Your task to perform on an android device: check out phone information Image 0: 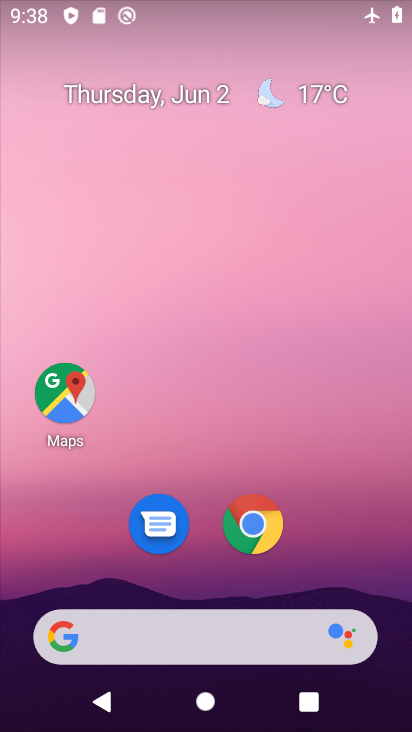
Step 0: drag from (171, 456) to (145, 5)
Your task to perform on an android device: check out phone information Image 1: 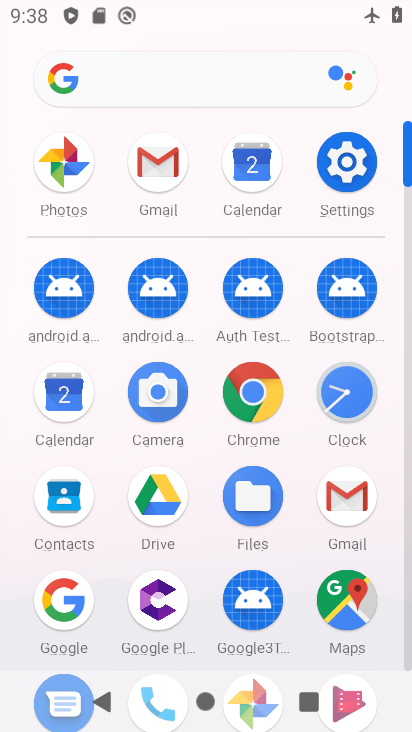
Step 1: drag from (200, 456) to (170, 167)
Your task to perform on an android device: check out phone information Image 2: 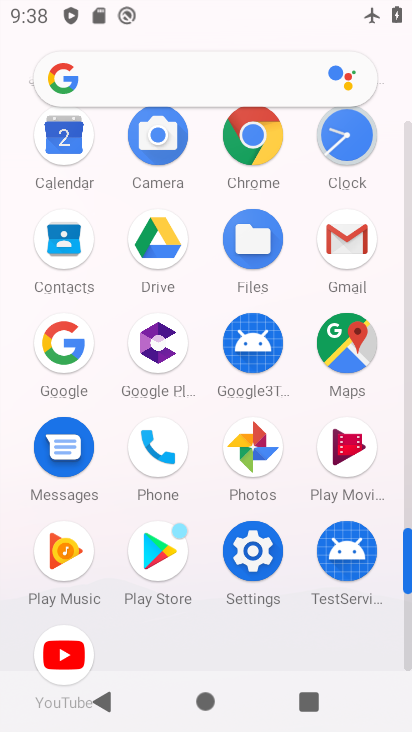
Step 2: click (156, 448)
Your task to perform on an android device: check out phone information Image 3: 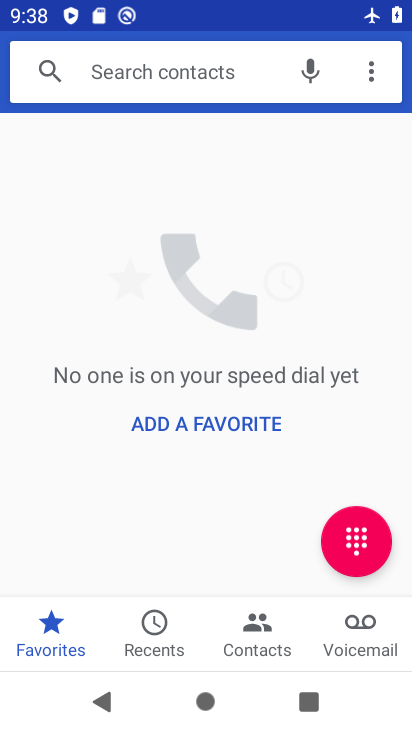
Step 3: click (370, 74)
Your task to perform on an android device: check out phone information Image 4: 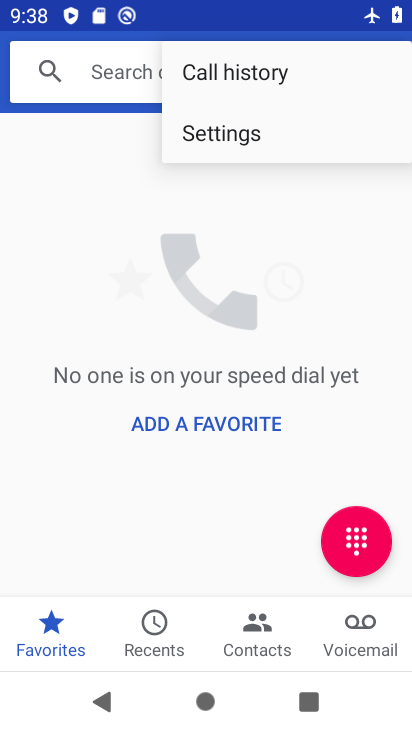
Step 4: click (336, 144)
Your task to perform on an android device: check out phone information Image 5: 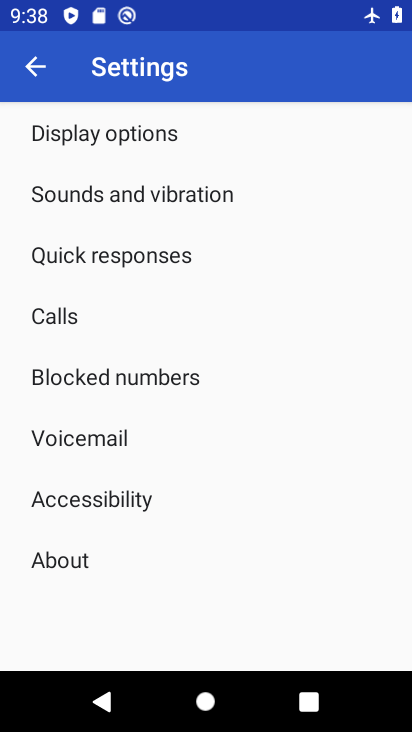
Step 5: click (111, 559)
Your task to perform on an android device: check out phone information Image 6: 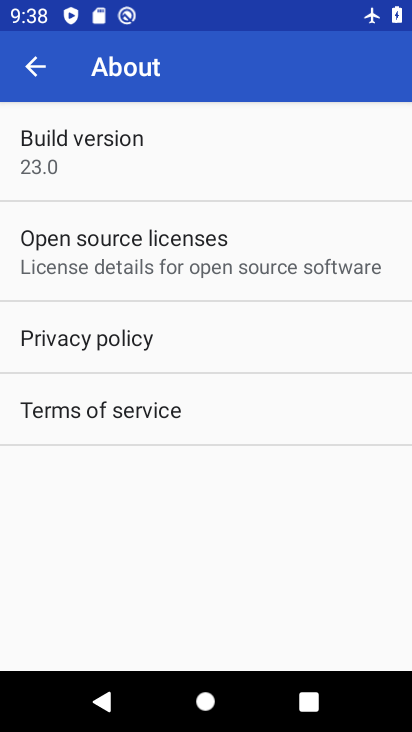
Step 6: task complete